Your task to perform on an android device: Open internet settings Image 0: 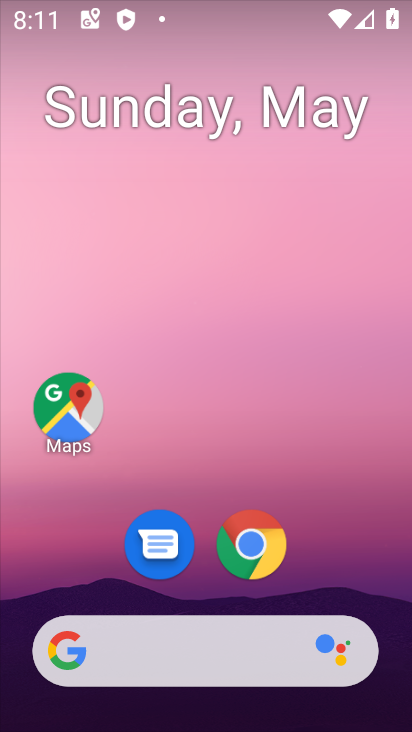
Step 0: drag from (328, 575) to (256, 17)
Your task to perform on an android device: Open internet settings Image 1: 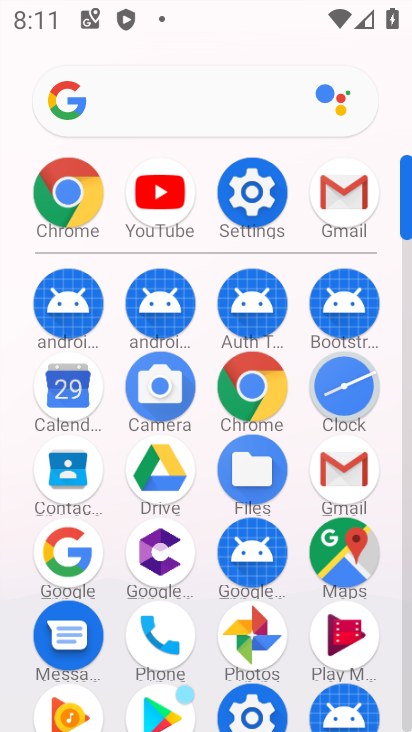
Step 1: click (253, 190)
Your task to perform on an android device: Open internet settings Image 2: 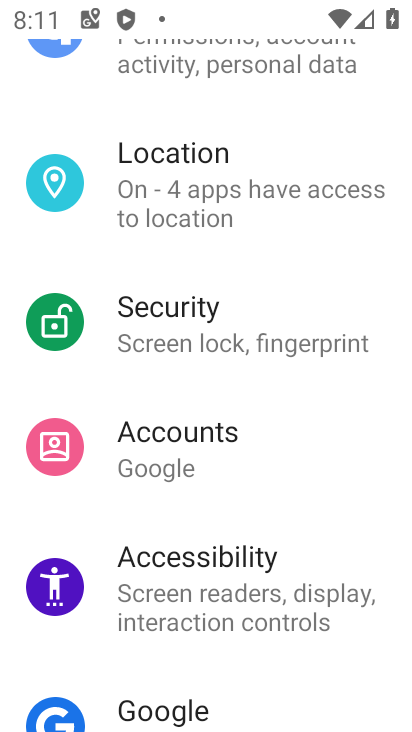
Step 2: drag from (259, 173) to (271, 569)
Your task to perform on an android device: Open internet settings Image 3: 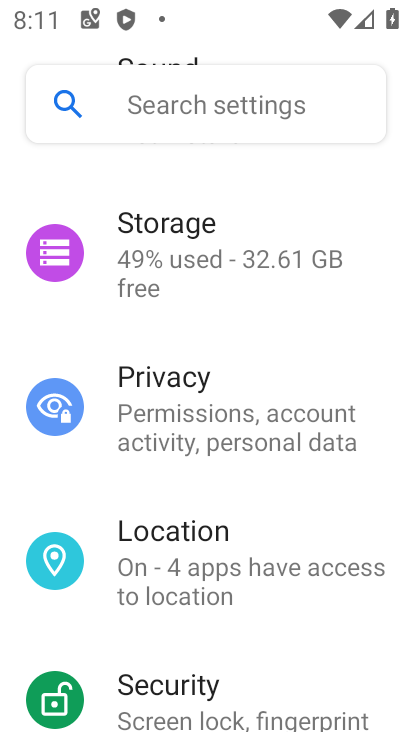
Step 3: drag from (253, 241) to (246, 608)
Your task to perform on an android device: Open internet settings Image 4: 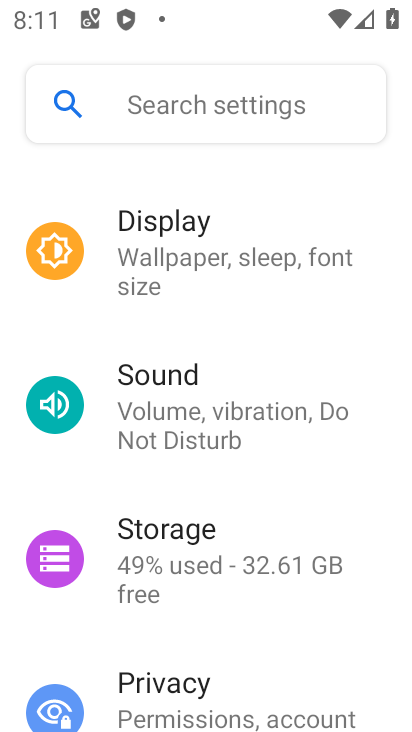
Step 4: drag from (227, 215) to (229, 593)
Your task to perform on an android device: Open internet settings Image 5: 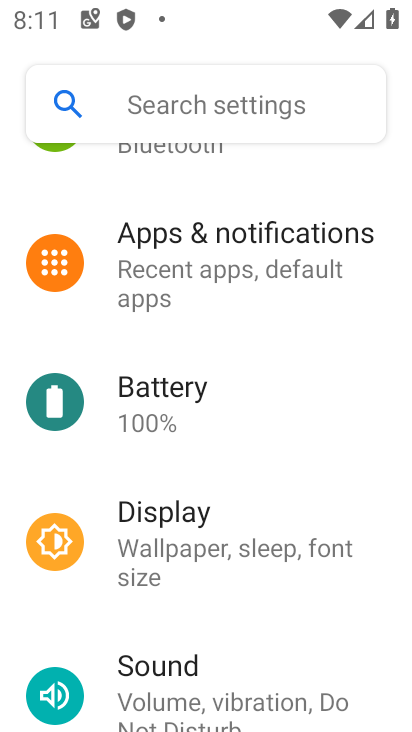
Step 5: drag from (246, 272) to (233, 677)
Your task to perform on an android device: Open internet settings Image 6: 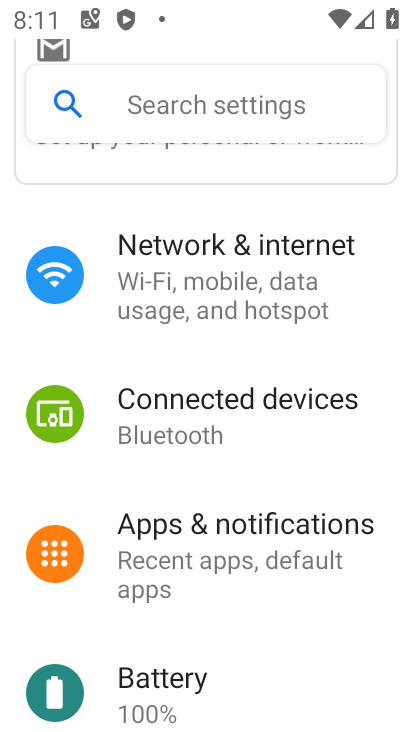
Step 6: click (221, 294)
Your task to perform on an android device: Open internet settings Image 7: 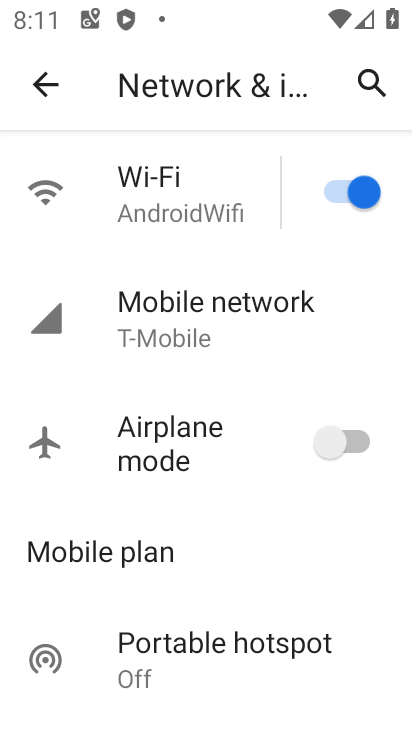
Step 7: drag from (239, 593) to (221, 201)
Your task to perform on an android device: Open internet settings Image 8: 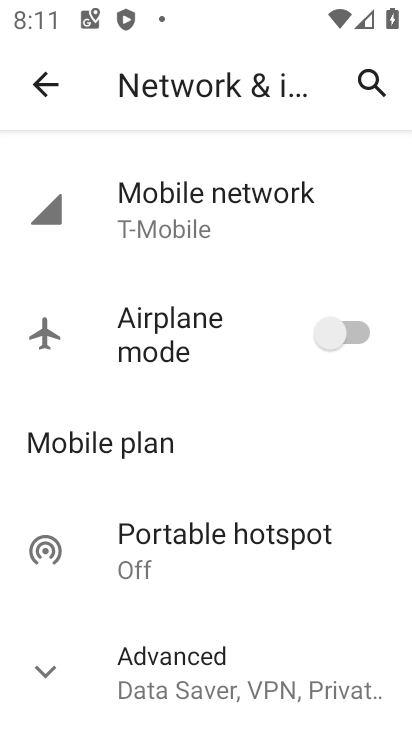
Step 8: click (69, 657)
Your task to perform on an android device: Open internet settings Image 9: 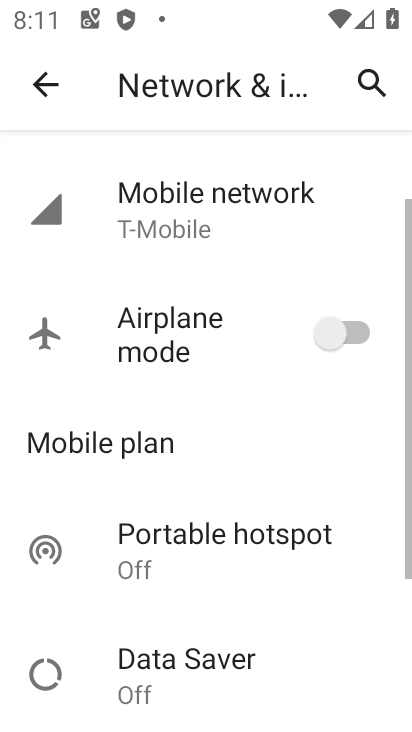
Step 9: task complete